Your task to perform on an android device: Open eBay Image 0: 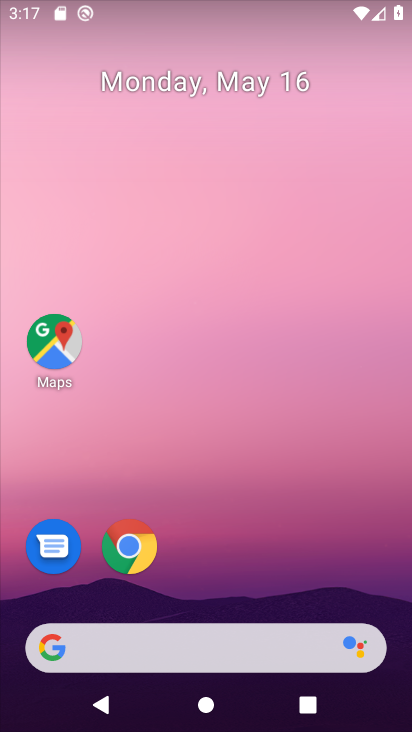
Step 0: drag from (365, 510) to (382, 157)
Your task to perform on an android device: Open eBay Image 1: 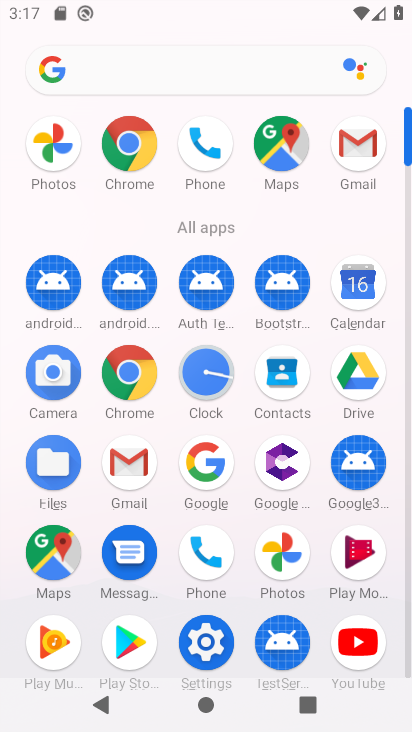
Step 1: click (124, 375)
Your task to perform on an android device: Open eBay Image 2: 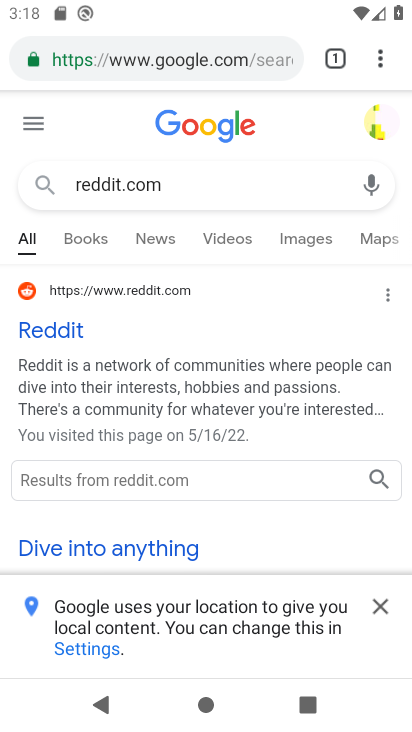
Step 2: click (237, 60)
Your task to perform on an android device: Open eBay Image 3: 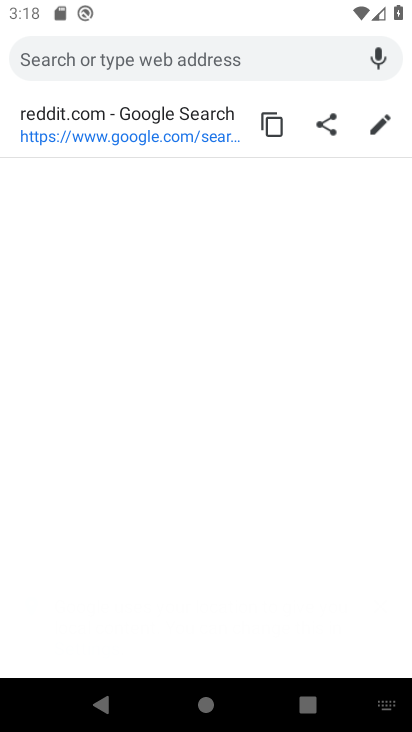
Step 3: type "ebay"
Your task to perform on an android device: Open eBay Image 4: 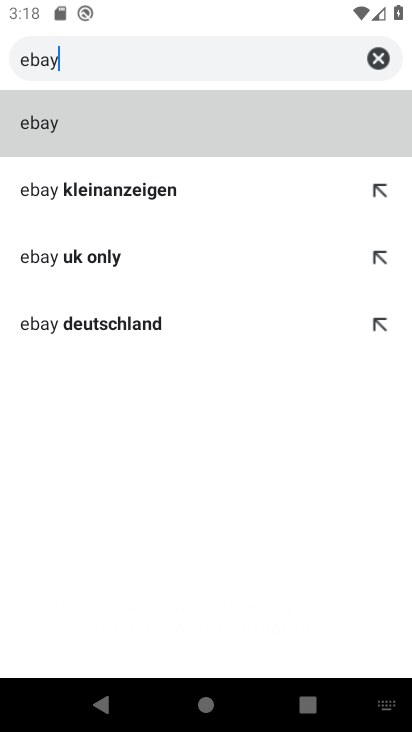
Step 4: click (86, 133)
Your task to perform on an android device: Open eBay Image 5: 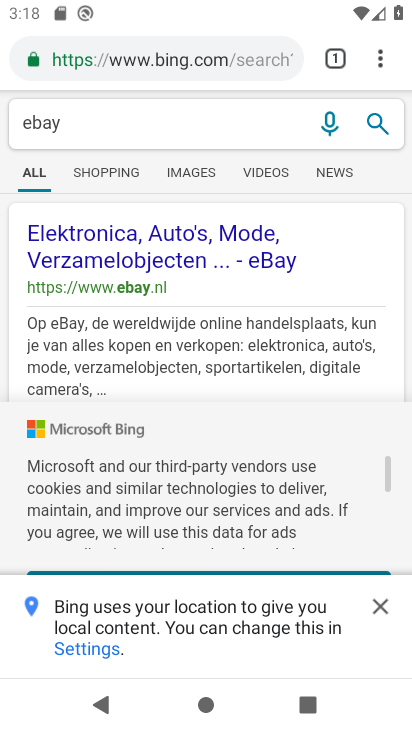
Step 5: task complete